Your task to perform on an android device: Turn off the flashlight Image 0: 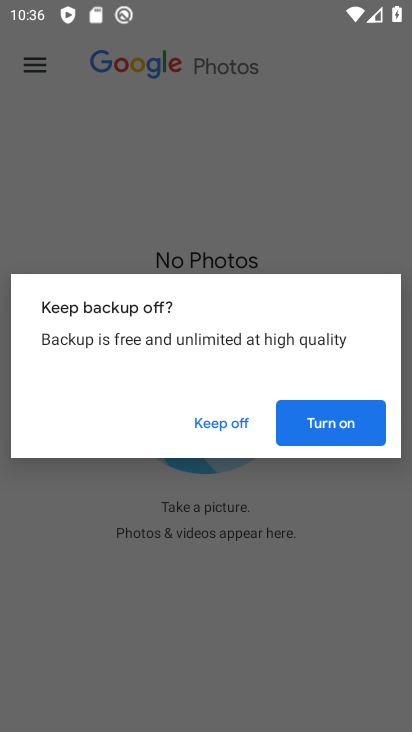
Step 0: press back button
Your task to perform on an android device: Turn off the flashlight Image 1: 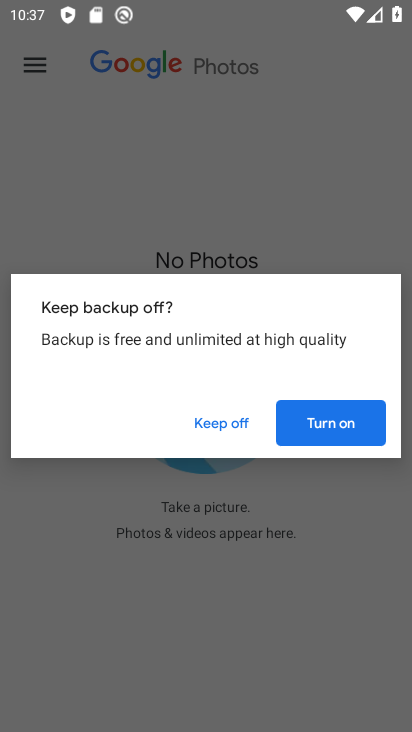
Step 1: press home button
Your task to perform on an android device: Turn off the flashlight Image 2: 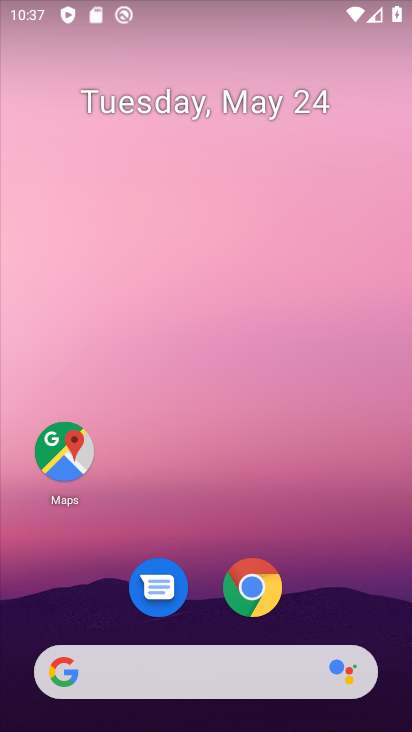
Step 2: drag from (327, 601) to (246, 57)
Your task to perform on an android device: Turn off the flashlight Image 3: 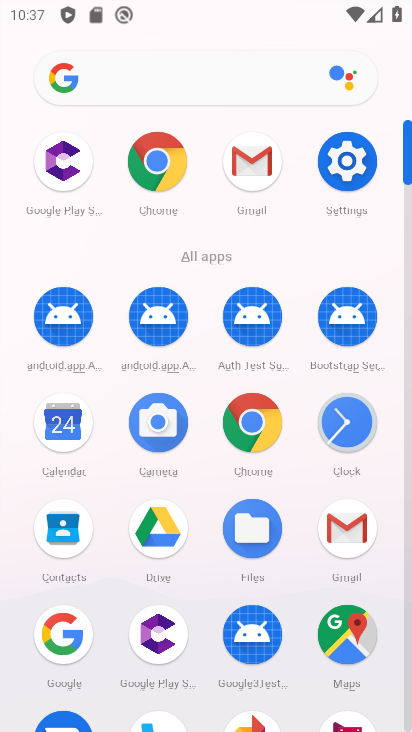
Step 3: click (349, 158)
Your task to perform on an android device: Turn off the flashlight Image 4: 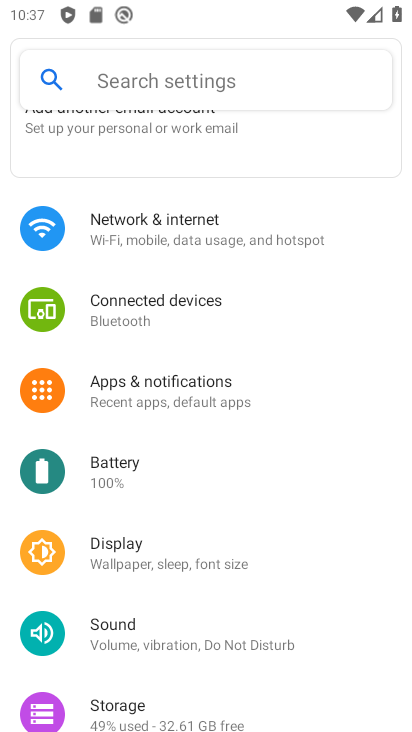
Step 4: click (250, 227)
Your task to perform on an android device: Turn off the flashlight Image 5: 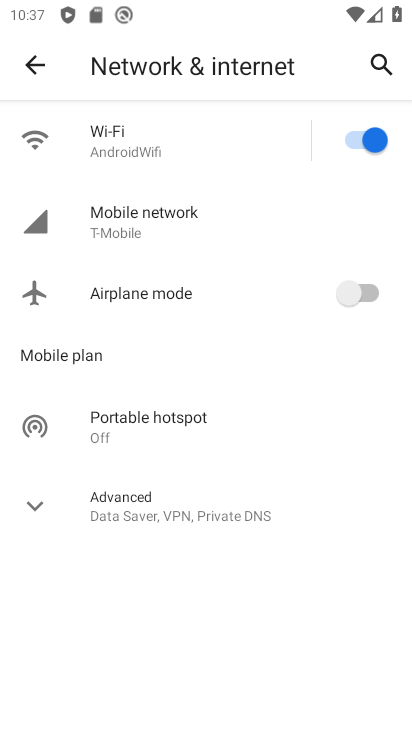
Step 5: click (37, 500)
Your task to perform on an android device: Turn off the flashlight Image 6: 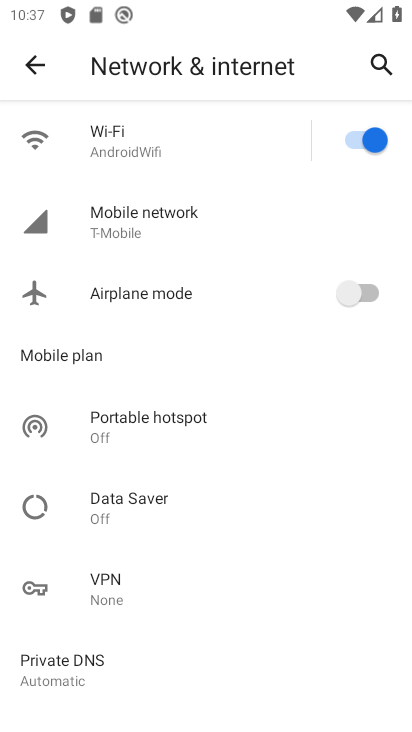
Step 6: task complete